Your task to perform on an android device: toggle notifications settings in the gmail app Image 0: 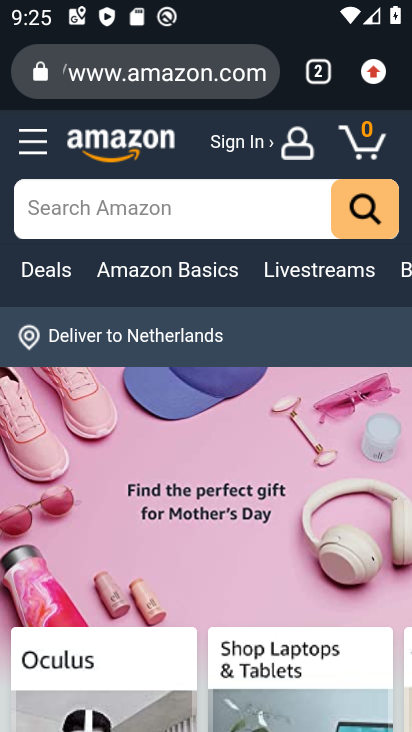
Step 0: press home button
Your task to perform on an android device: toggle notifications settings in the gmail app Image 1: 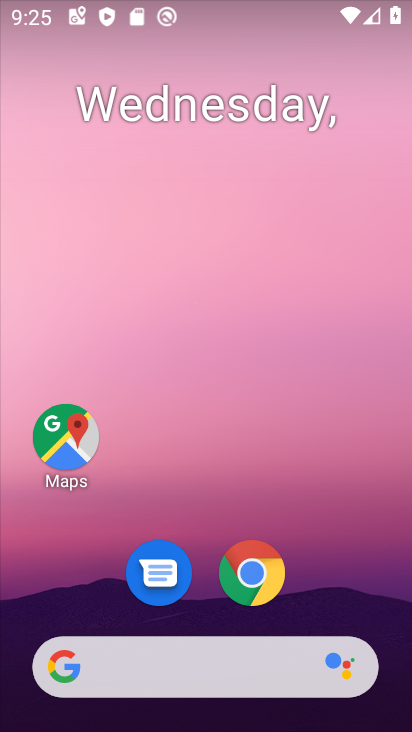
Step 1: drag from (372, 580) to (353, 312)
Your task to perform on an android device: toggle notifications settings in the gmail app Image 2: 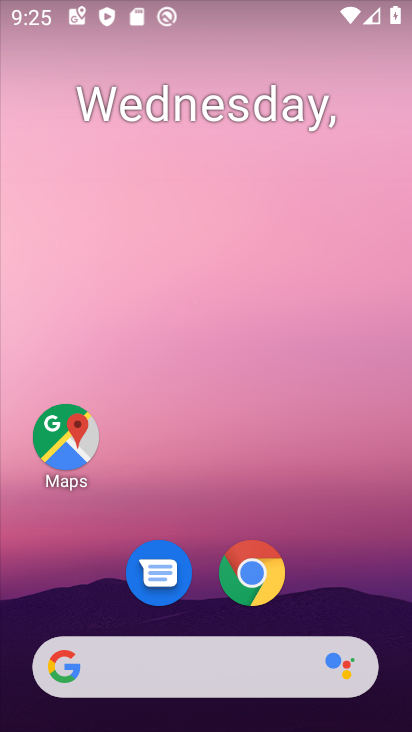
Step 2: drag from (390, 610) to (348, 221)
Your task to perform on an android device: toggle notifications settings in the gmail app Image 3: 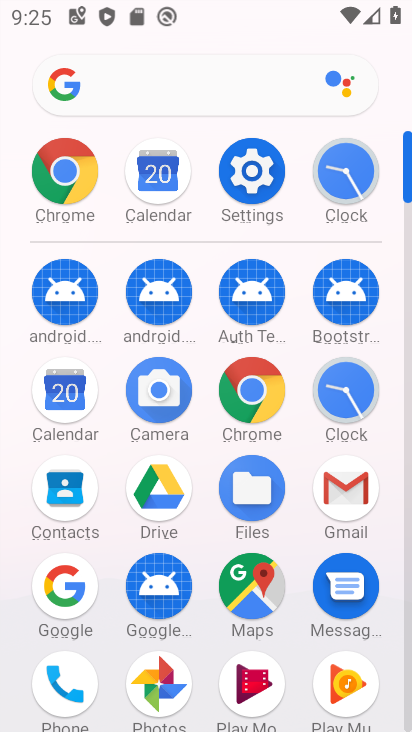
Step 3: click (344, 481)
Your task to perform on an android device: toggle notifications settings in the gmail app Image 4: 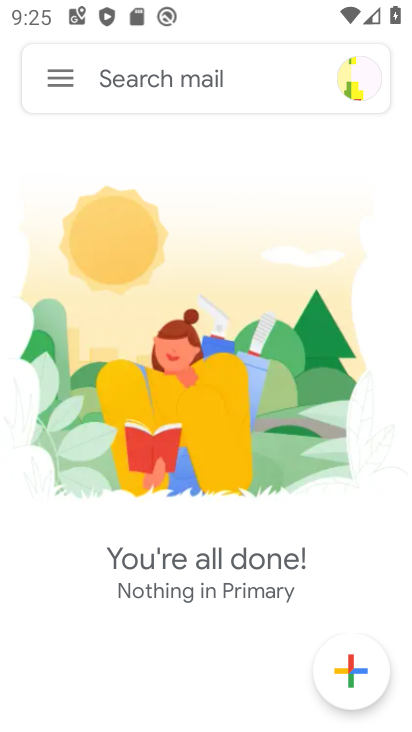
Step 4: click (55, 78)
Your task to perform on an android device: toggle notifications settings in the gmail app Image 5: 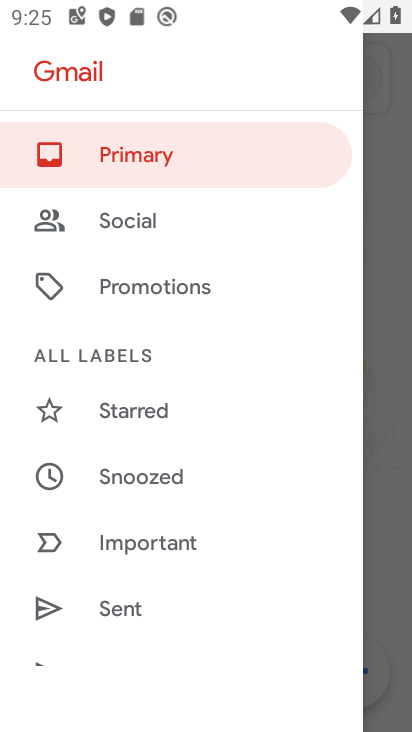
Step 5: drag from (218, 479) to (225, 316)
Your task to perform on an android device: toggle notifications settings in the gmail app Image 6: 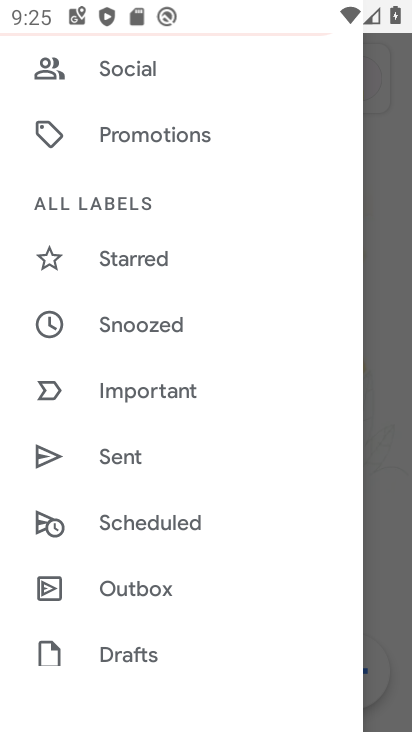
Step 6: drag from (252, 442) to (256, 294)
Your task to perform on an android device: toggle notifications settings in the gmail app Image 7: 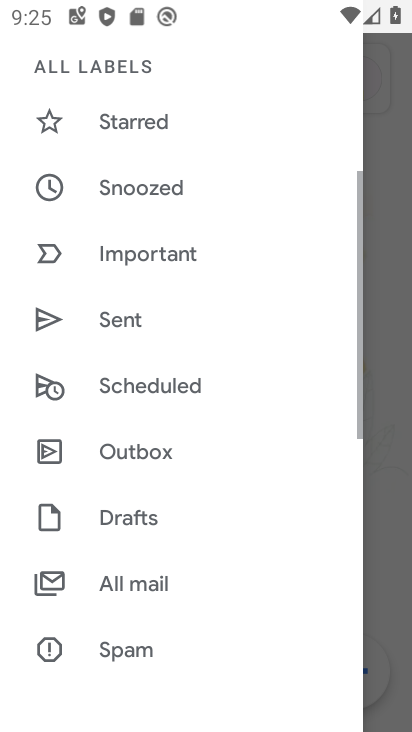
Step 7: drag from (283, 617) to (270, 313)
Your task to perform on an android device: toggle notifications settings in the gmail app Image 8: 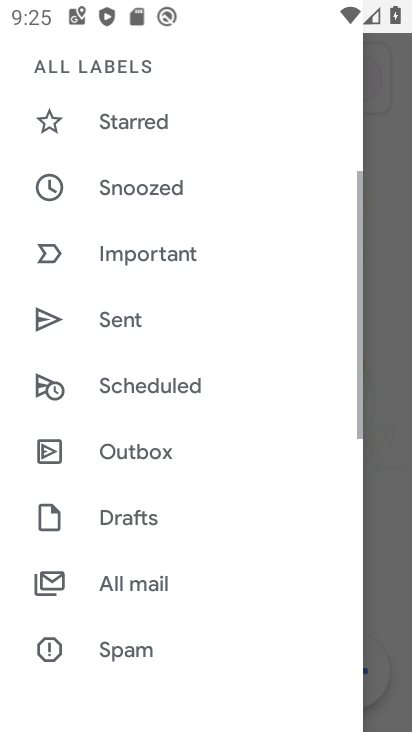
Step 8: drag from (242, 490) to (239, 286)
Your task to perform on an android device: toggle notifications settings in the gmail app Image 9: 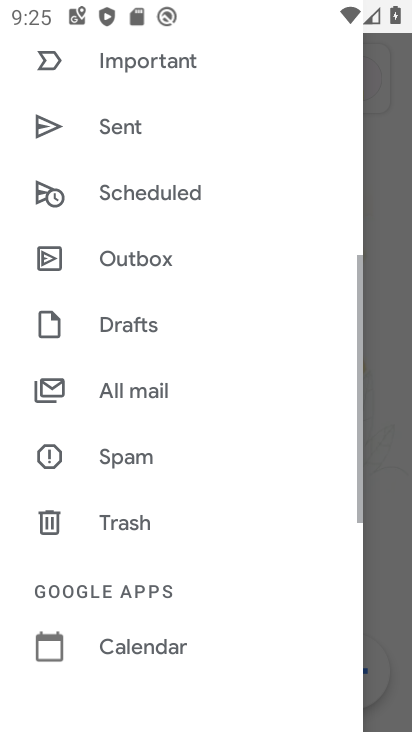
Step 9: drag from (246, 644) to (216, 283)
Your task to perform on an android device: toggle notifications settings in the gmail app Image 10: 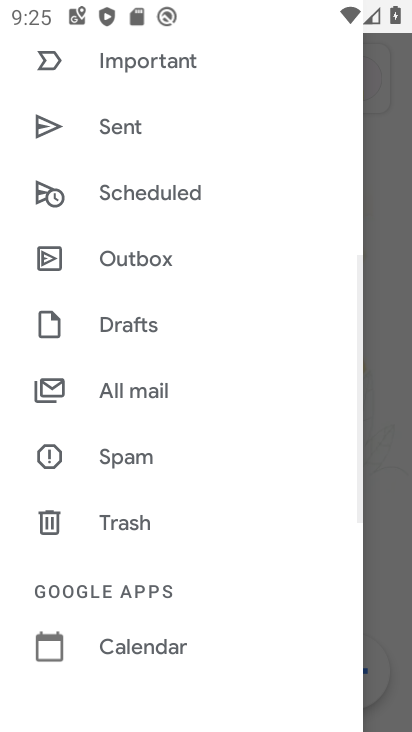
Step 10: drag from (269, 592) to (258, 267)
Your task to perform on an android device: toggle notifications settings in the gmail app Image 11: 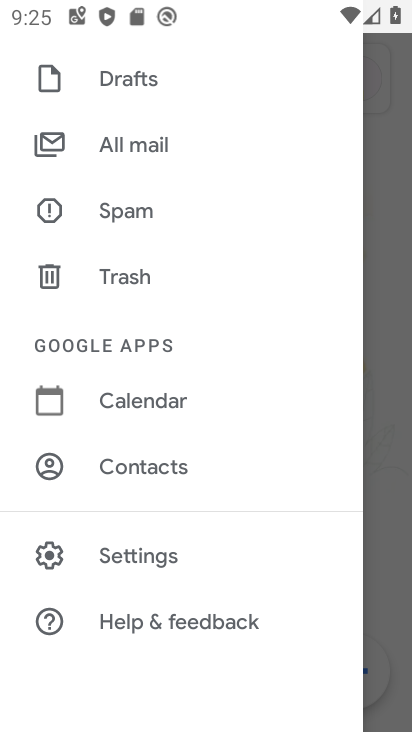
Step 11: click (59, 557)
Your task to perform on an android device: toggle notifications settings in the gmail app Image 12: 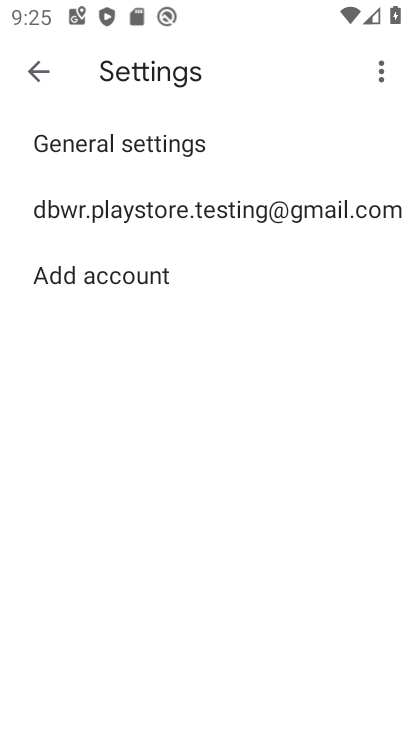
Step 12: click (117, 143)
Your task to perform on an android device: toggle notifications settings in the gmail app Image 13: 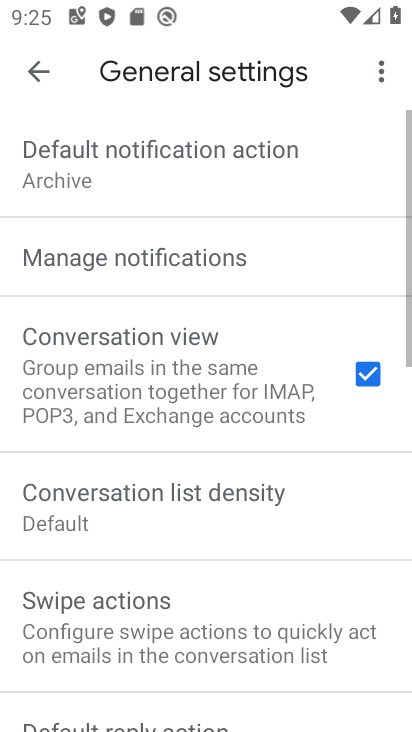
Step 13: click (121, 252)
Your task to perform on an android device: toggle notifications settings in the gmail app Image 14: 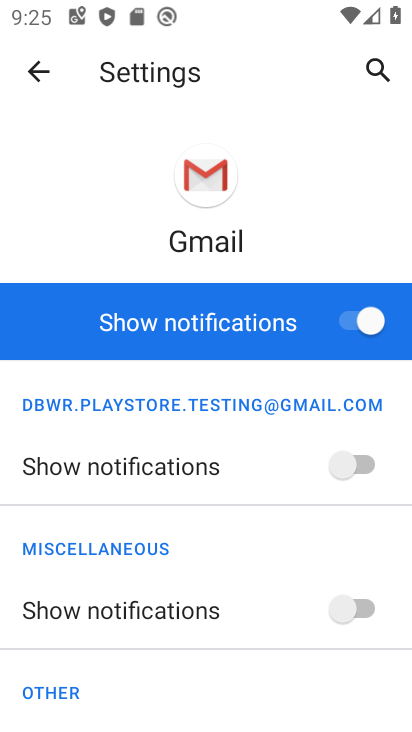
Step 14: click (342, 318)
Your task to perform on an android device: toggle notifications settings in the gmail app Image 15: 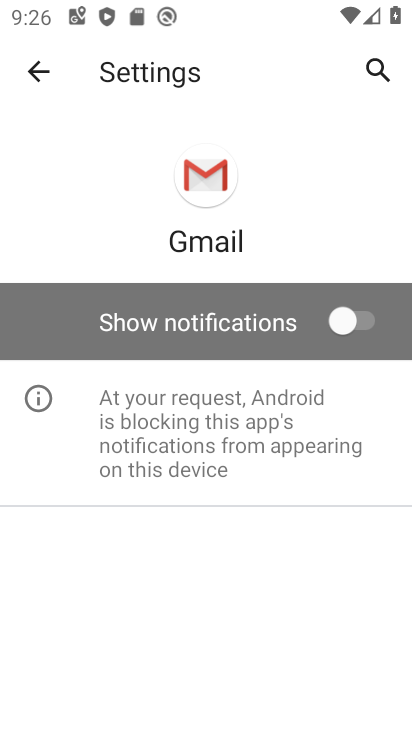
Step 15: task complete